Your task to perform on an android device: Go to Amazon Image 0: 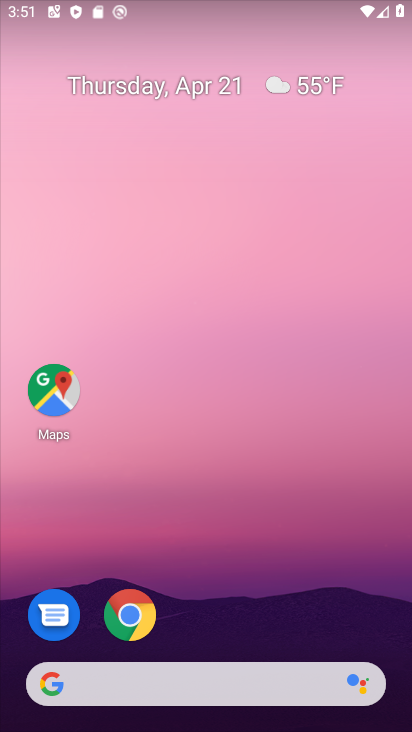
Step 0: click (166, 31)
Your task to perform on an android device: Go to Amazon Image 1: 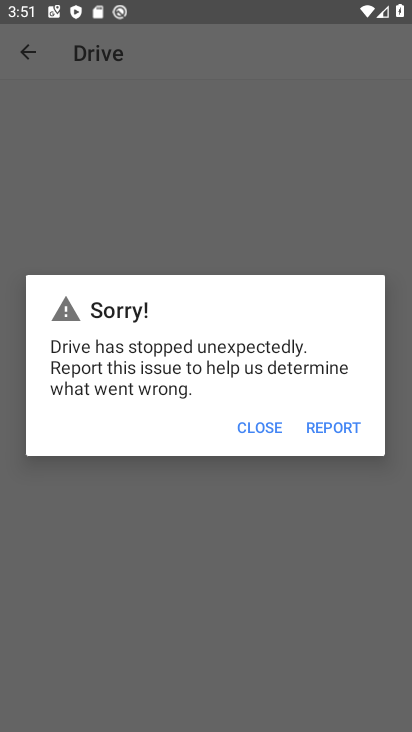
Step 1: press back button
Your task to perform on an android device: Go to Amazon Image 2: 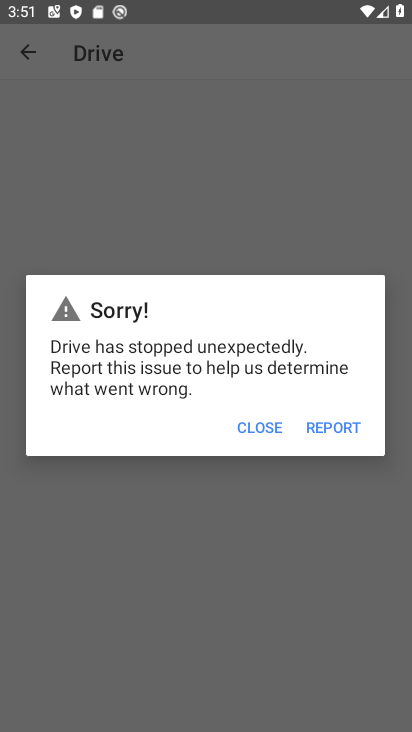
Step 2: press home button
Your task to perform on an android device: Go to Amazon Image 3: 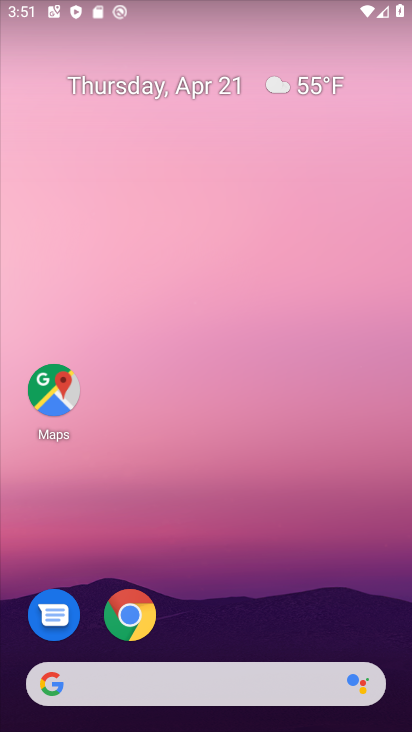
Step 3: drag from (305, 532) to (186, 7)
Your task to perform on an android device: Go to Amazon Image 4: 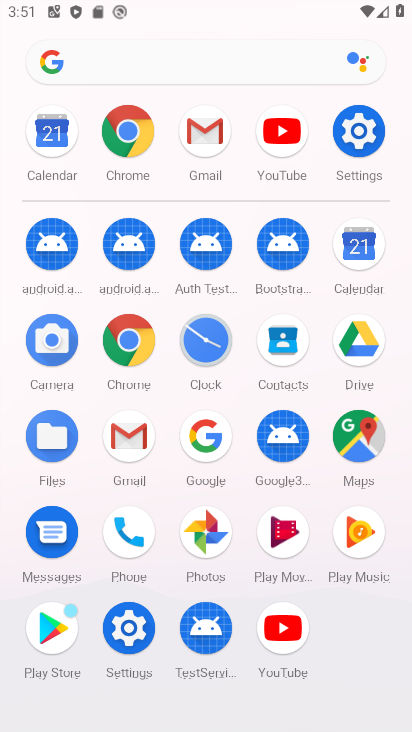
Step 4: click (129, 338)
Your task to perform on an android device: Go to Amazon Image 5: 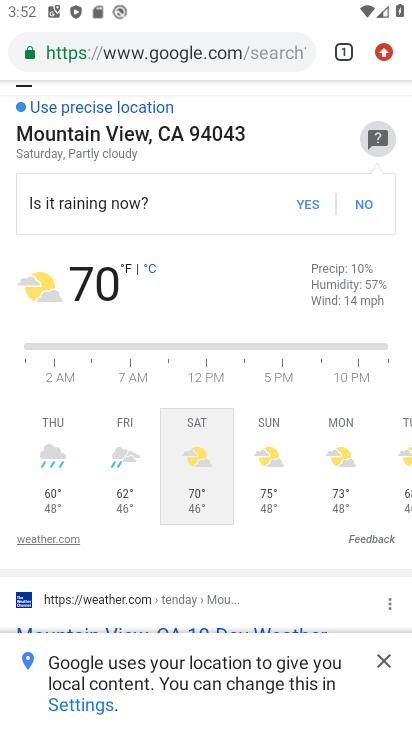
Step 5: click (235, 52)
Your task to perform on an android device: Go to Amazon Image 6: 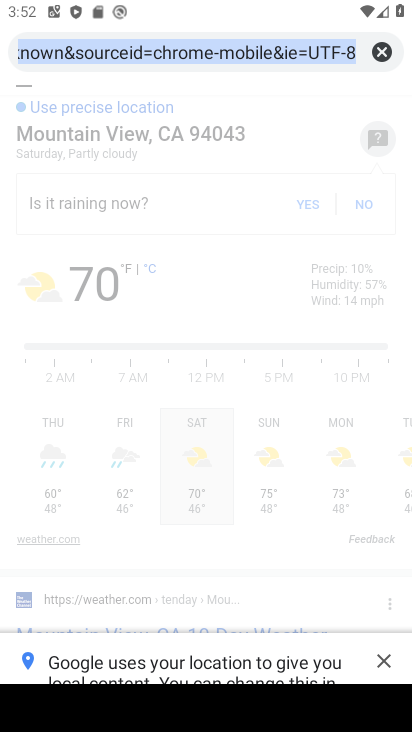
Step 6: click (386, 57)
Your task to perform on an android device: Go to Amazon Image 7: 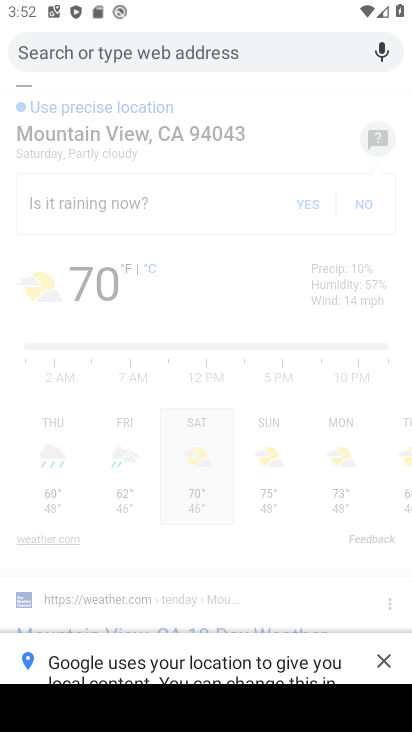
Step 7: type " Amazon"
Your task to perform on an android device: Go to Amazon Image 8: 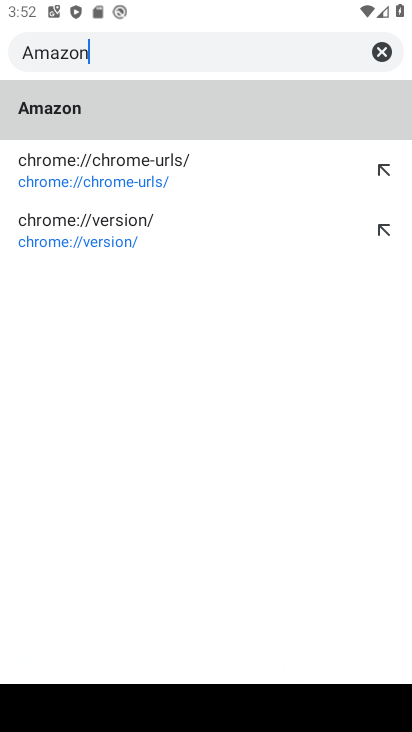
Step 8: type ""
Your task to perform on an android device: Go to Amazon Image 9: 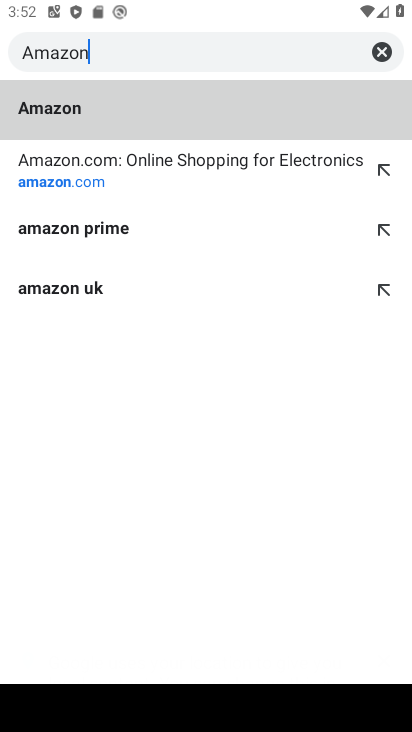
Step 9: click (96, 167)
Your task to perform on an android device: Go to Amazon Image 10: 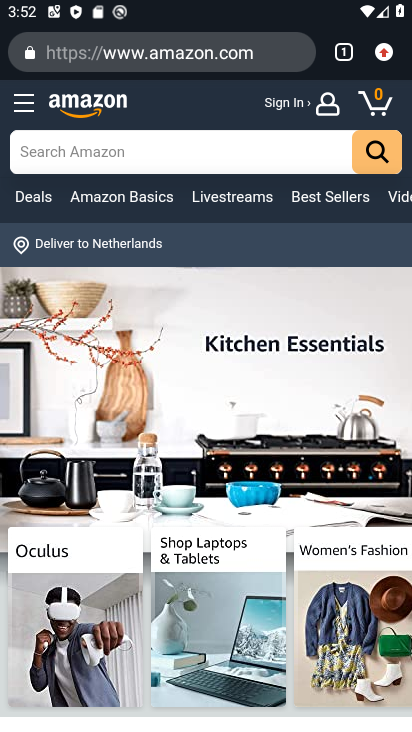
Step 10: task complete